Your task to perform on an android device: check data usage Image 0: 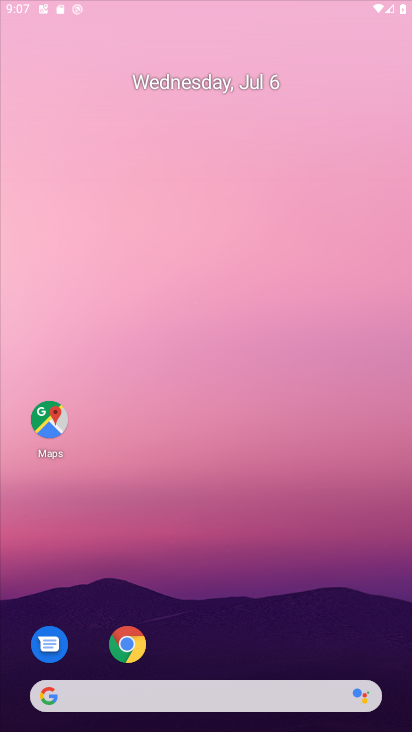
Step 0: drag from (275, 580) to (271, 6)
Your task to perform on an android device: check data usage Image 1: 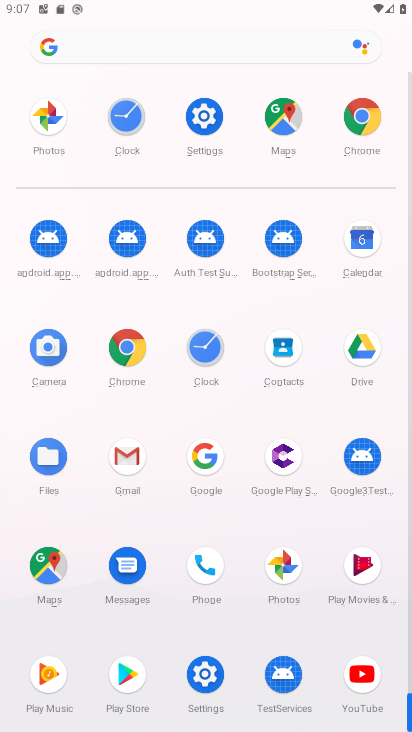
Step 1: drag from (181, 530) to (172, 194)
Your task to perform on an android device: check data usage Image 2: 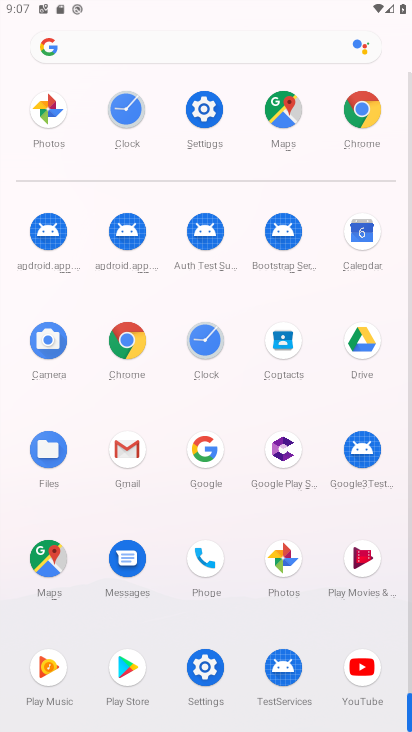
Step 2: click (197, 671)
Your task to perform on an android device: check data usage Image 3: 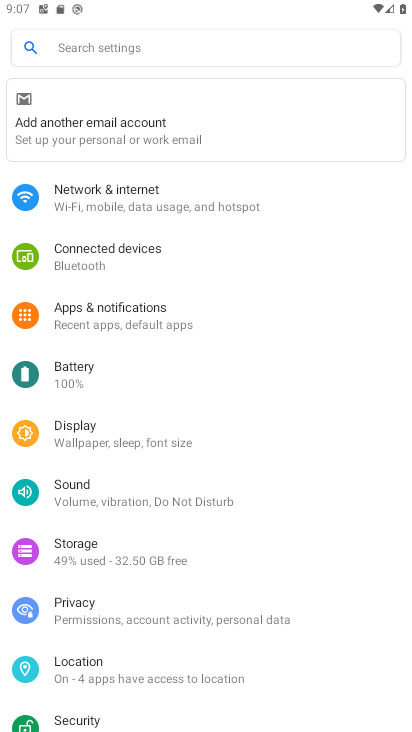
Step 3: click (131, 202)
Your task to perform on an android device: check data usage Image 4: 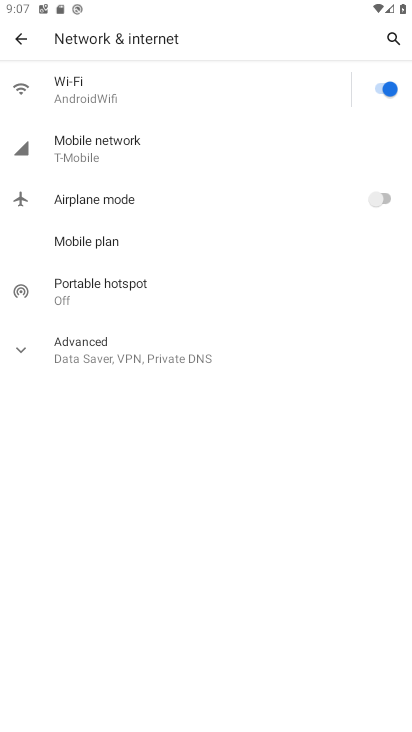
Step 4: click (165, 154)
Your task to perform on an android device: check data usage Image 5: 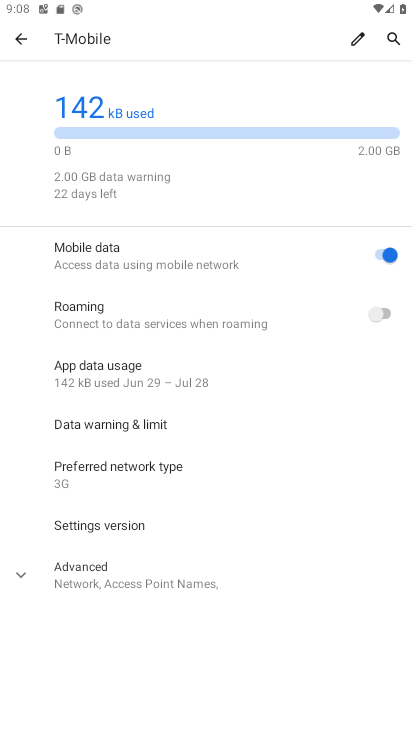
Step 5: click (144, 377)
Your task to perform on an android device: check data usage Image 6: 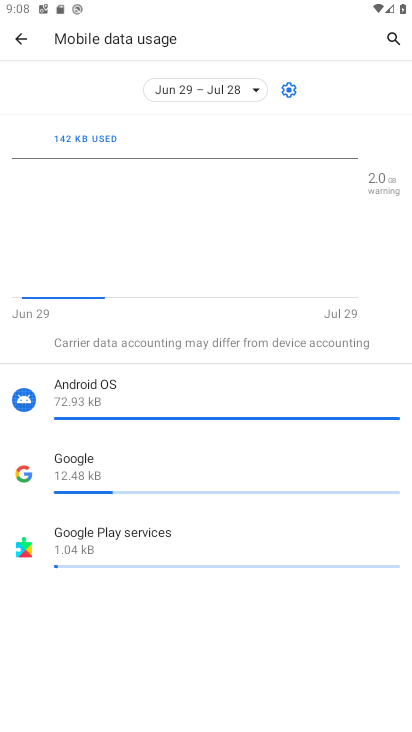
Step 6: task complete